Your task to perform on an android device: toggle notifications settings in the gmail app Image 0: 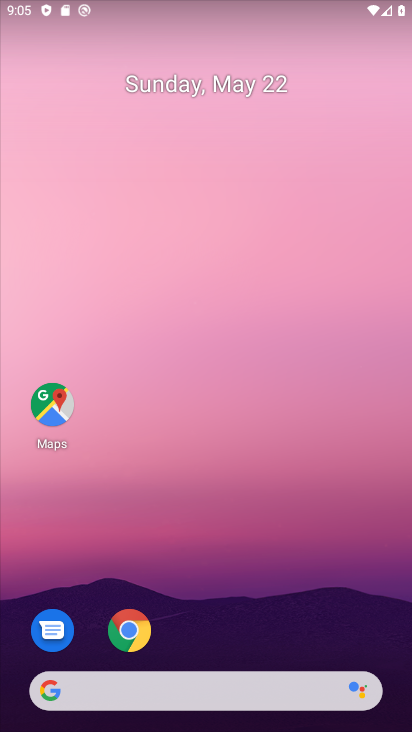
Step 0: drag from (411, 437) to (410, 146)
Your task to perform on an android device: toggle notifications settings in the gmail app Image 1: 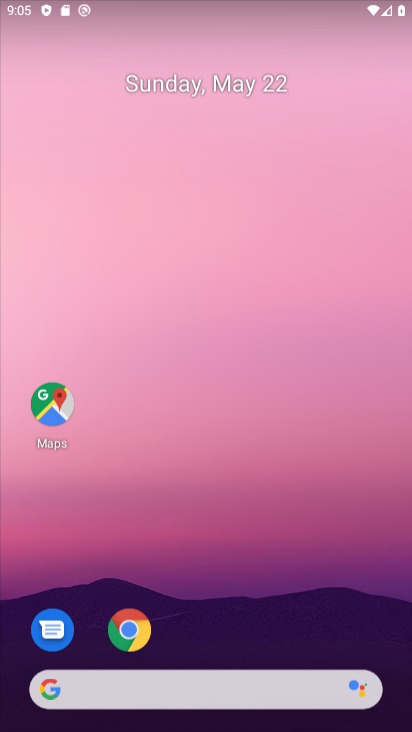
Step 1: drag from (400, 377) to (397, 219)
Your task to perform on an android device: toggle notifications settings in the gmail app Image 2: 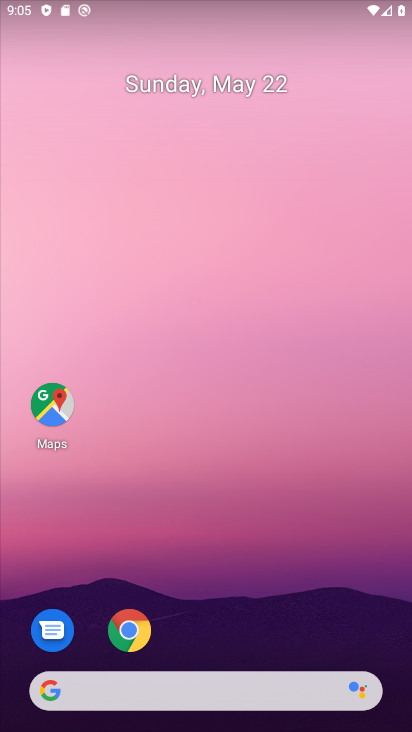
Step 2: drag from (401, 615) to (395, 202)
Your task to perform on an android device: toggle notifications settings in the gmail app Image 3: 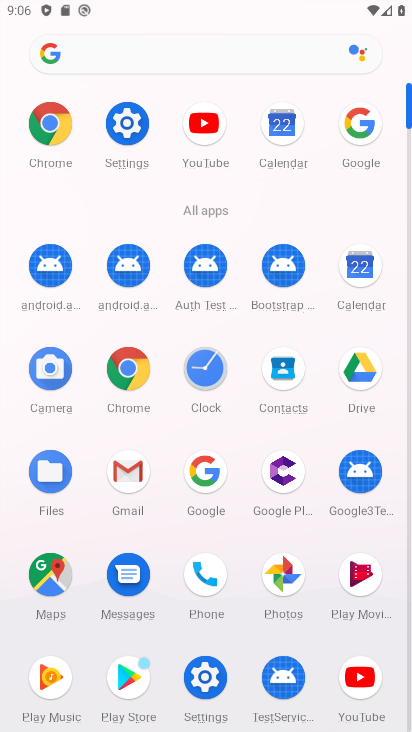
Step 3: click (128, 486)
Your task to perform on an android device: toggle notifications settings in the gmail app Image 4: 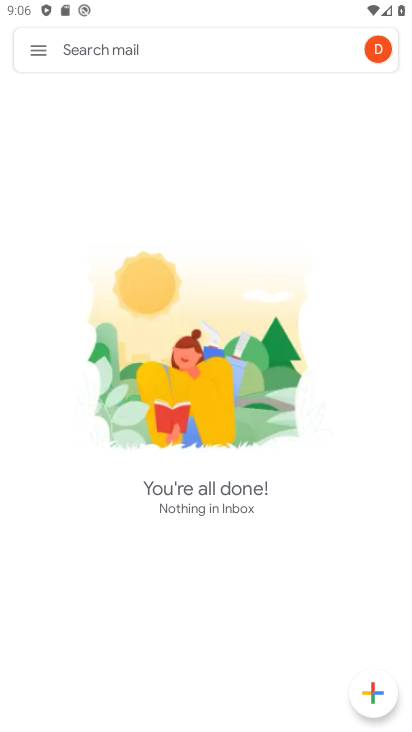
Step 4: click (40, 47)
Your task to perform on an android device: toggle notifications settings in the gmail app Image 5: 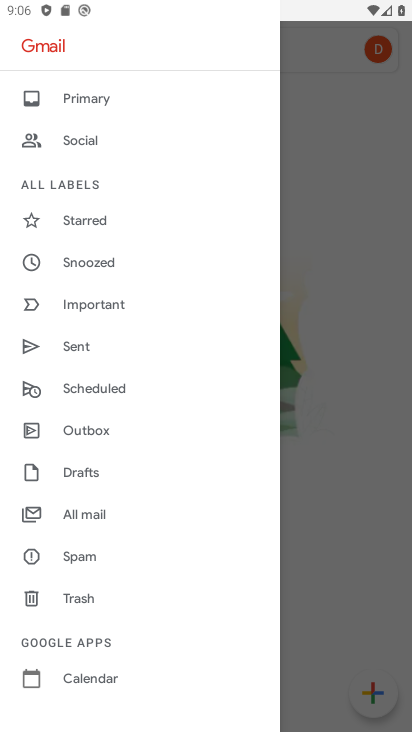
Step 5: drag from (230, 690) to (216, 330)
Your task to perform on an android device: toggle notifications settings in the gmail app Image 6: 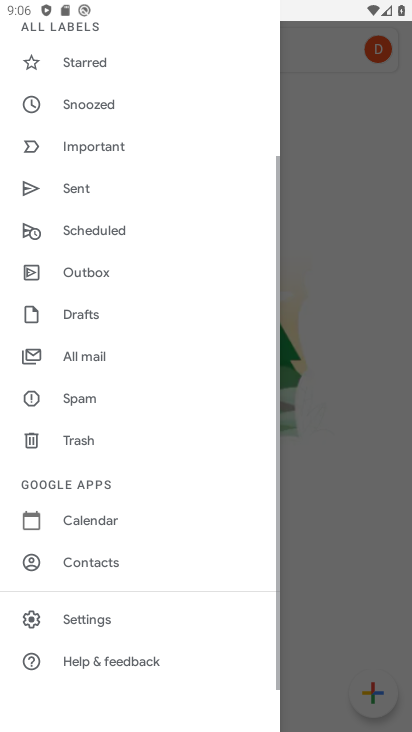
Step 6: click (80, 620)
Your task to perform on an android device: toggle notifications settings in the gmail app Image 7: 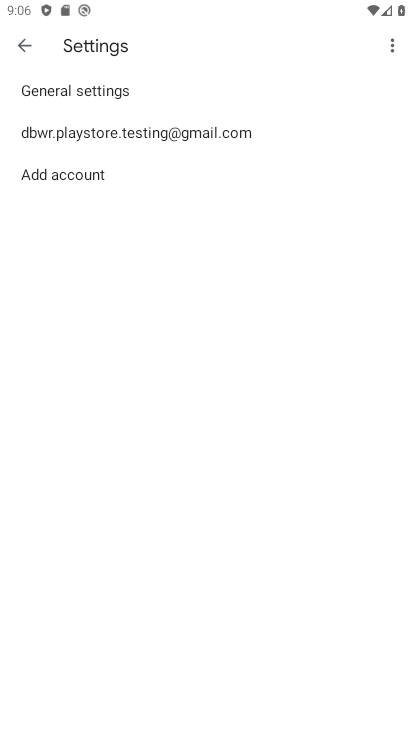
Step 7: click (63, 86)
Your task to perform on an android device: toggle notifications settings in the gmail app Image 8: 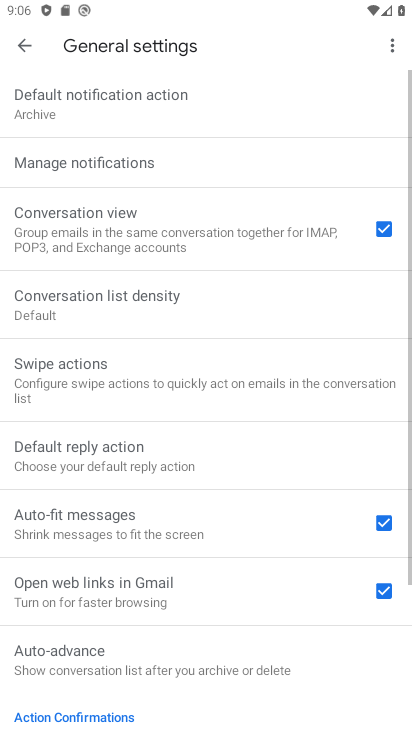
Step 8: click (67, 151)
Your task to perform on an android device: toggle notifications settings in the gmail app Image 9: 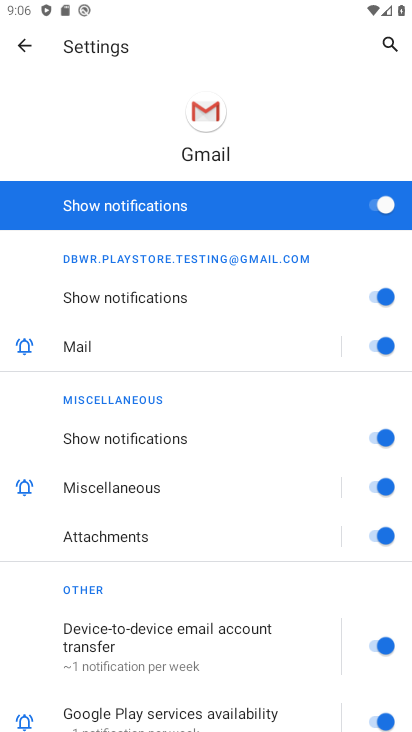
Step 9: click (370, 206)
Your task to perform on an android device: toggle notifications settings in the gmail app Image 10: 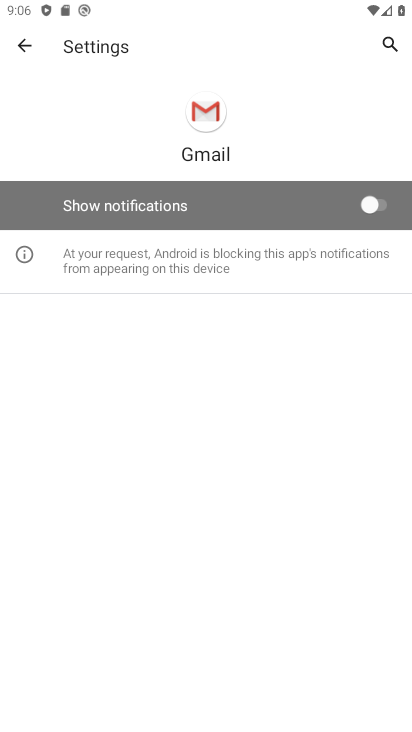
Step 10: task complete